Your task to perform on an android device: install app "LiveIn - Share Your Moment" Image 0: 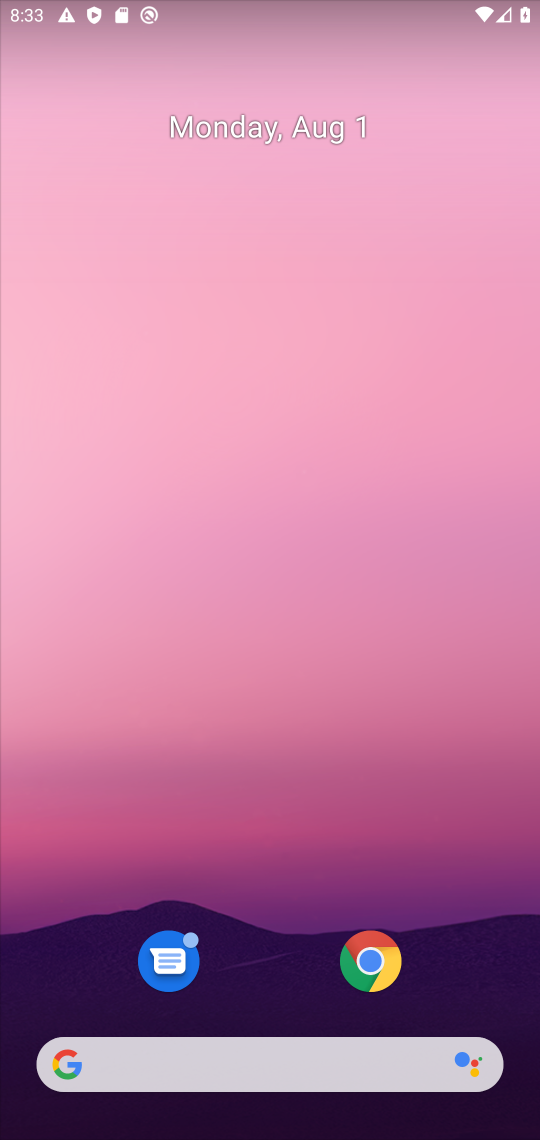
Step 0: drag from (399, 756) to (288, 74)
Your task to perform on an android device: install app "LiveIn - Share Your Moment" Image 1: 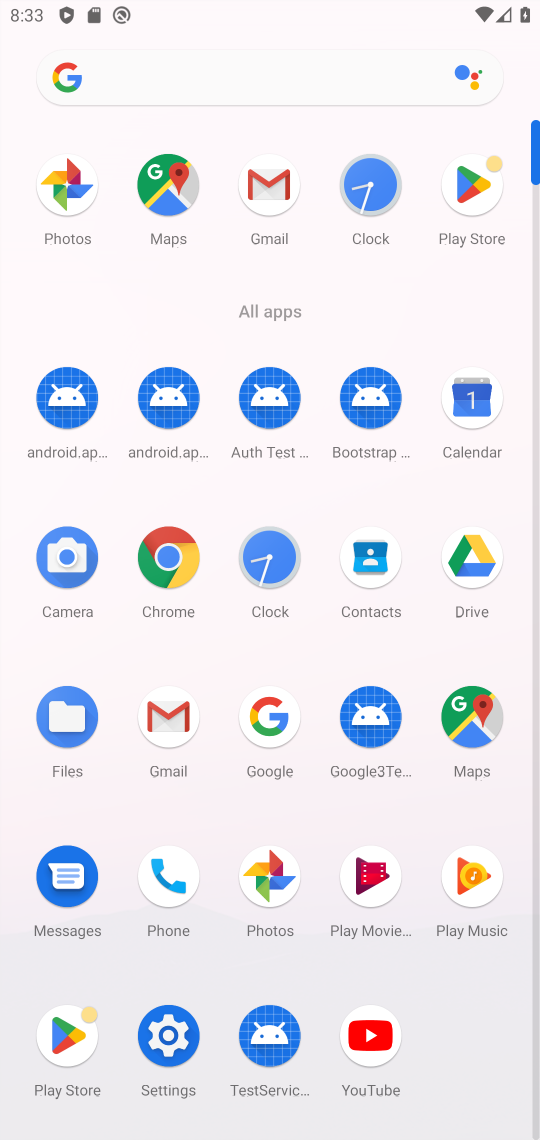
Step 1: click (454, 194)
Your task to perform on an android device: install app "LiveIn - Share Your Moment" Image 2: 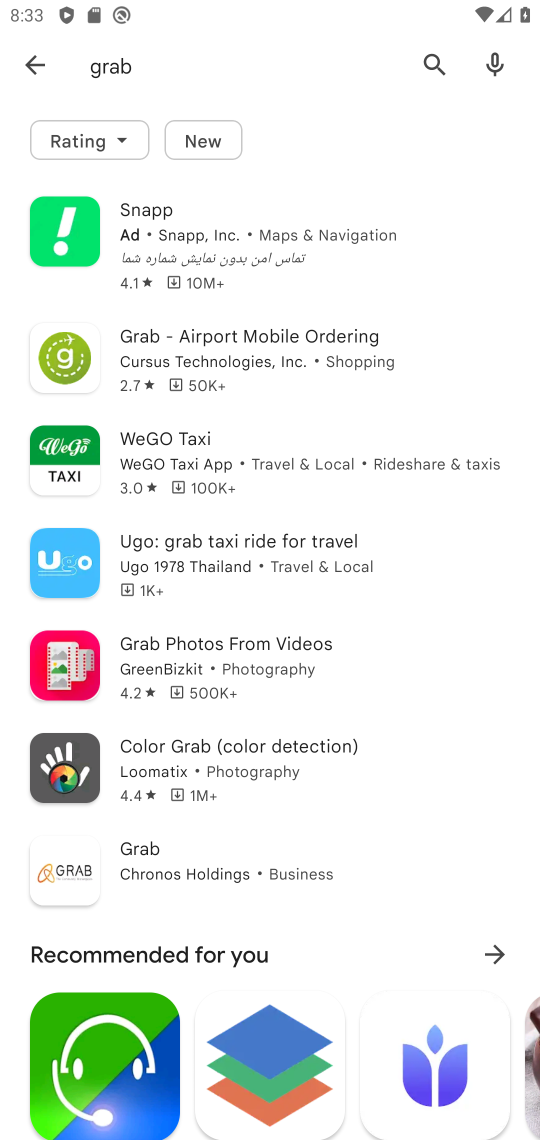
Step 2: click (15, 65)
Your task to perform on an android device: install app "LiveIn - Share Your Moment" Image 3: 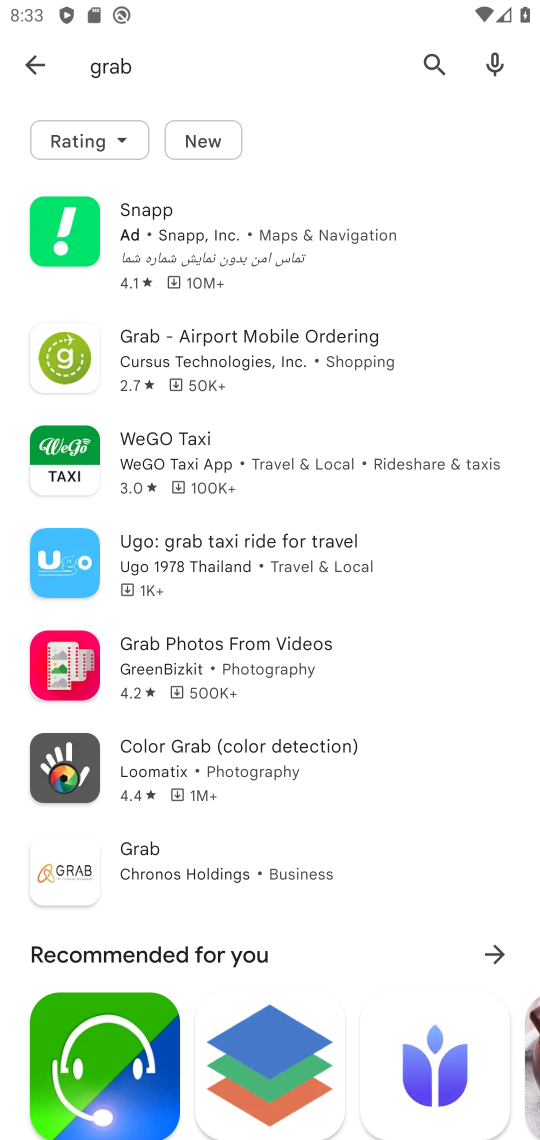
Step 3: click (36, 75)
Your task to perform on an android device: install app "LiveIn - Share Your Moment" Image 4: 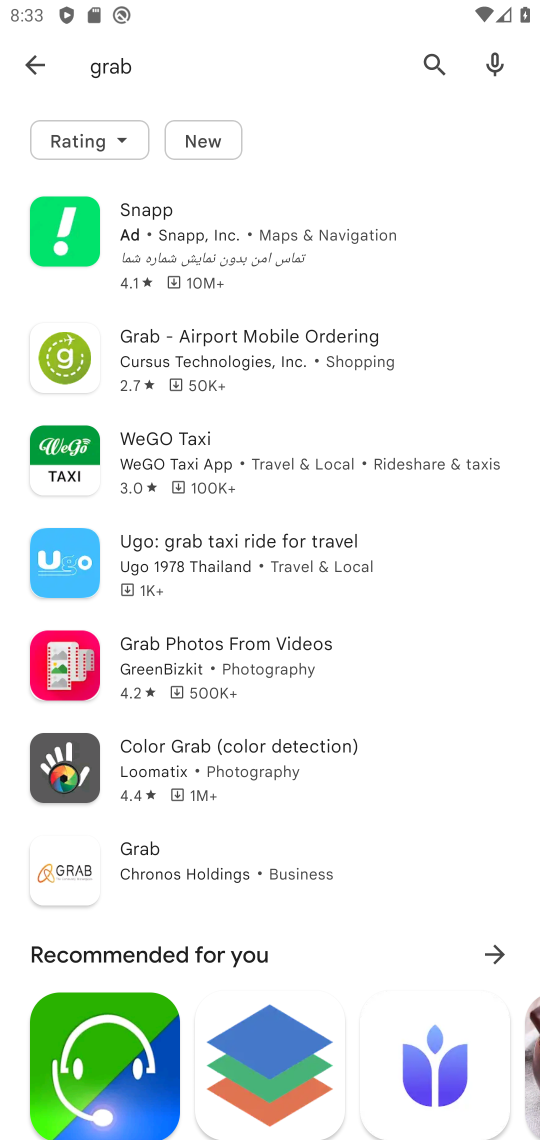
Step 4: click (28, 70)
Your task to perform on an android device: install app "LiveIn - Share Your Moment" Image 5: 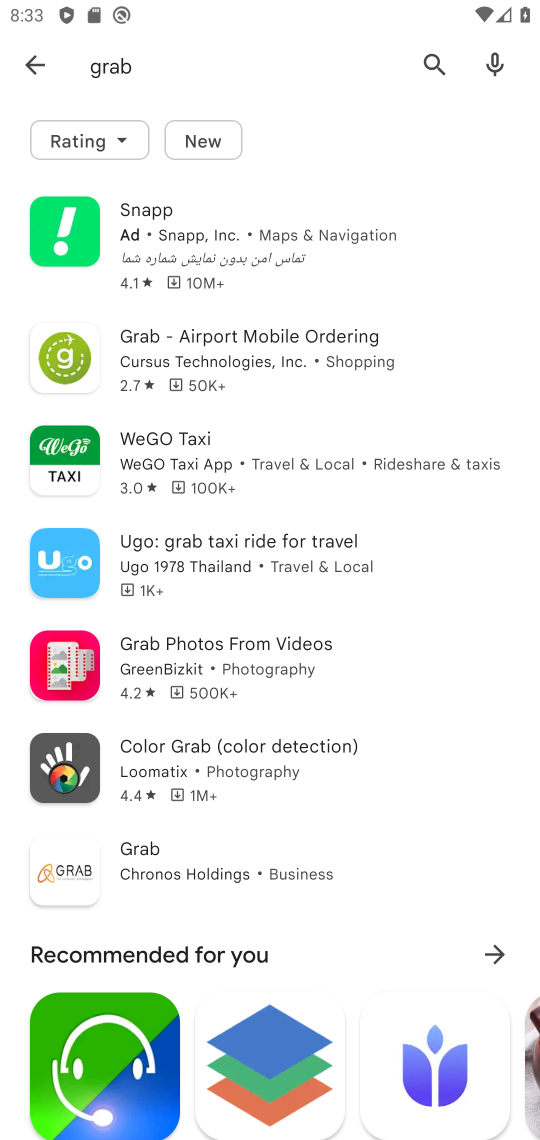
Step 5: press back button
Your task to perform on an android device: install app "LiveIn - Share Your Moment" Image 6: 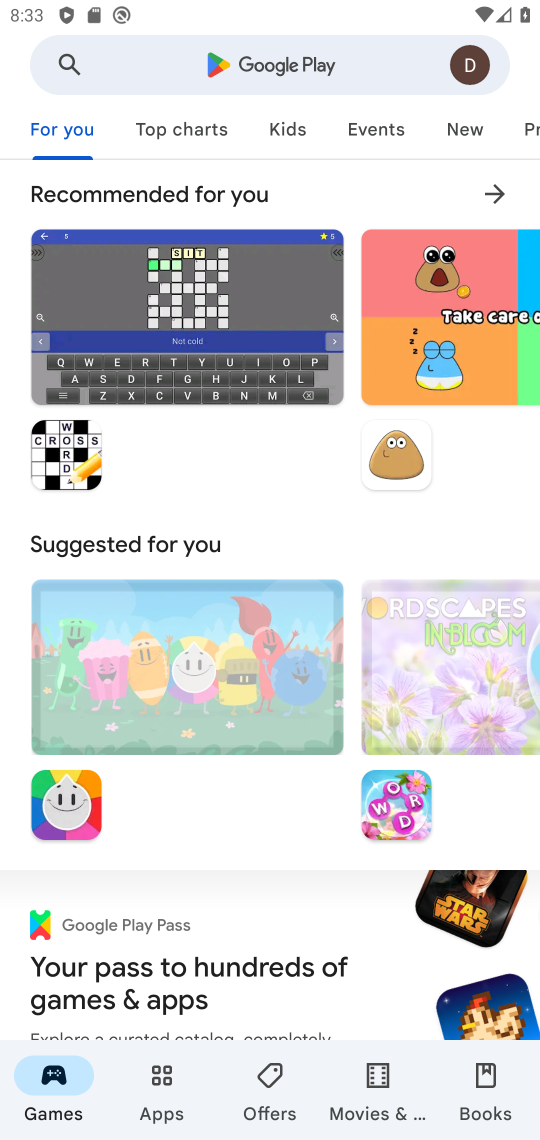
Step 6: click (255, 83)
Your task to perform on an android device: install app "LiveIn - Share Your Moment" Image 7: 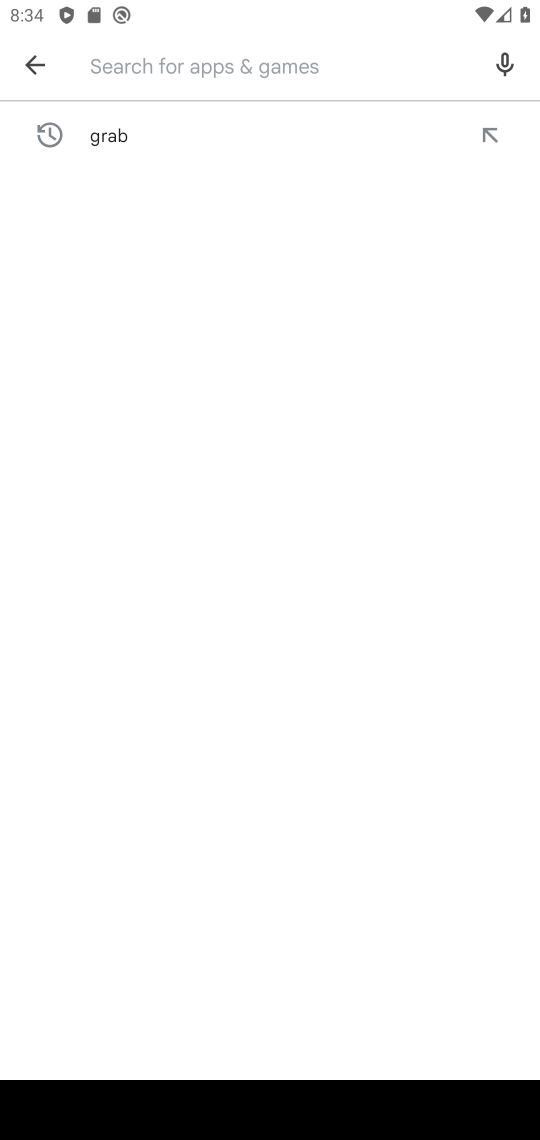
Step 7: type ""LiveIn - Share Your Moment"
Your task to perform on an android device: install app "LiveIn - Share Your Moment" Image 8: 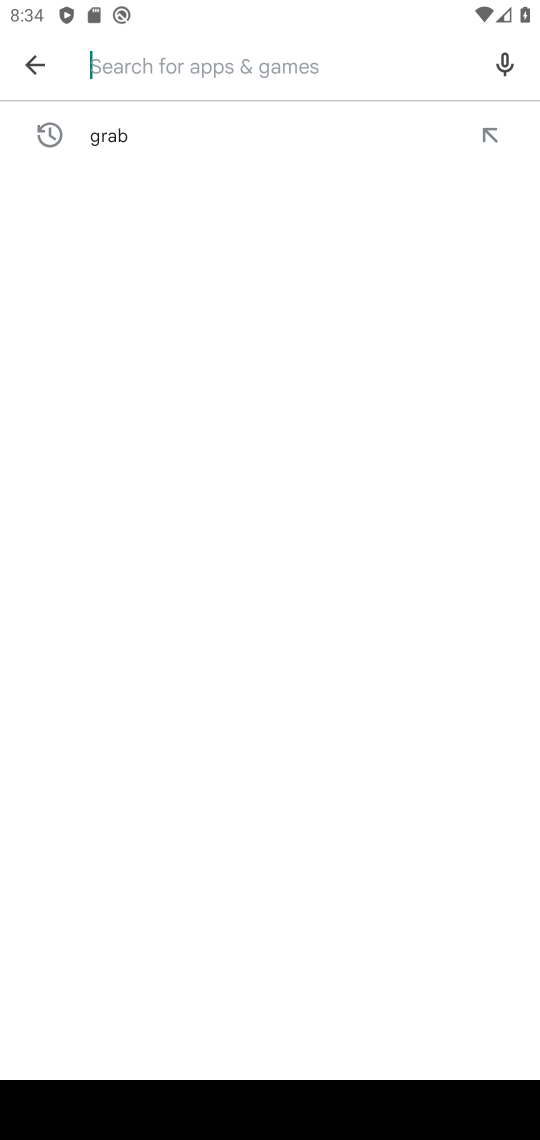
Step 8: type ""LiveIn - Share Your Moment"
Your task to perform on an android device: install app "LiveIn - Share Your Moment" Image 9: 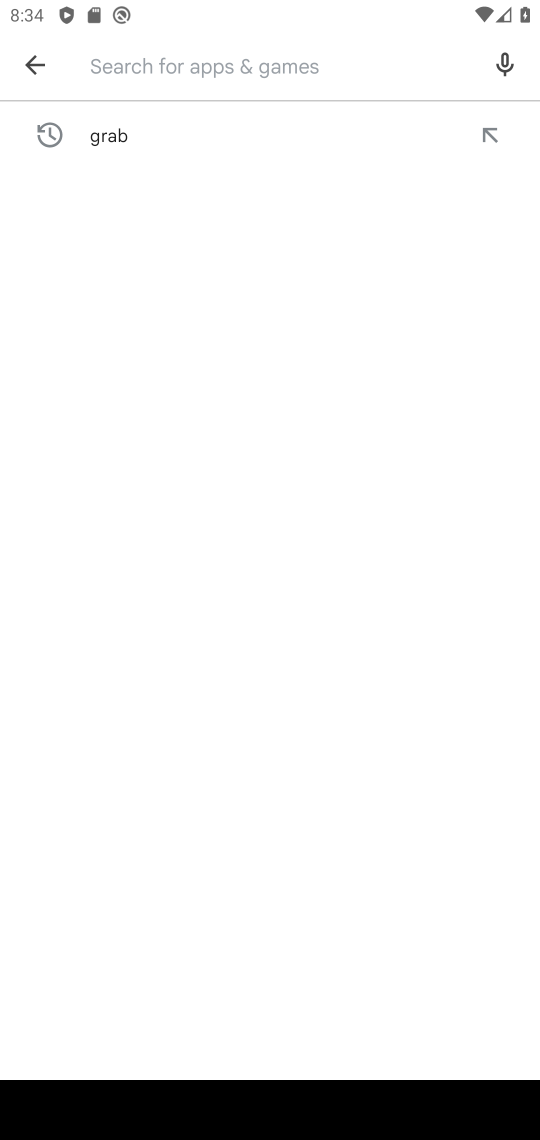
Step 9: press enter
Your task to perform on an android device: install app "LiveIn - Share Your Moment" Image 10: 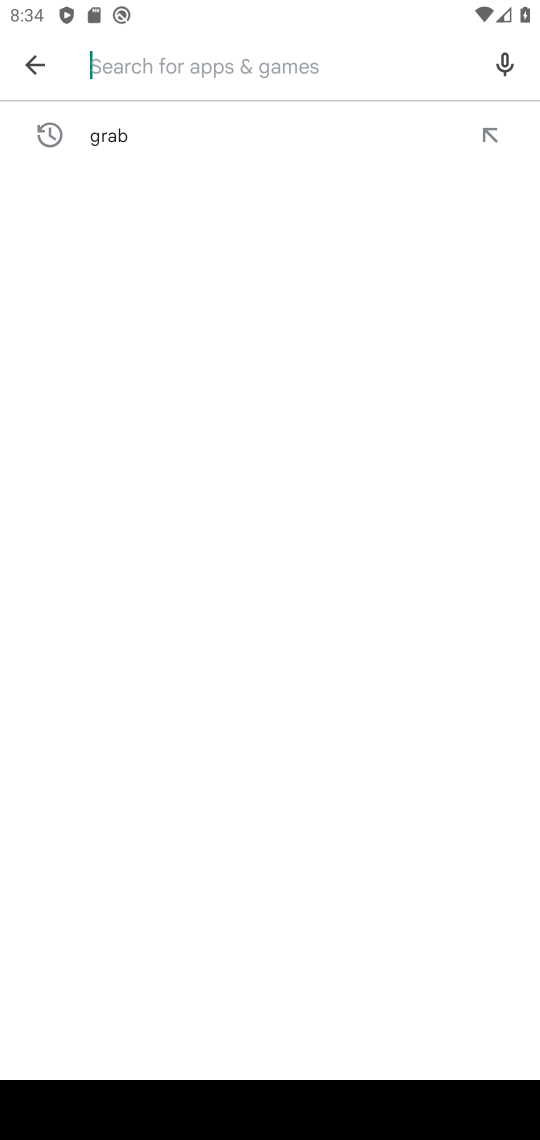
Step 10: type "livein share your moment"
Your task to perform on an android device: install app "LiveIn - Share Your Moment" Image 11: 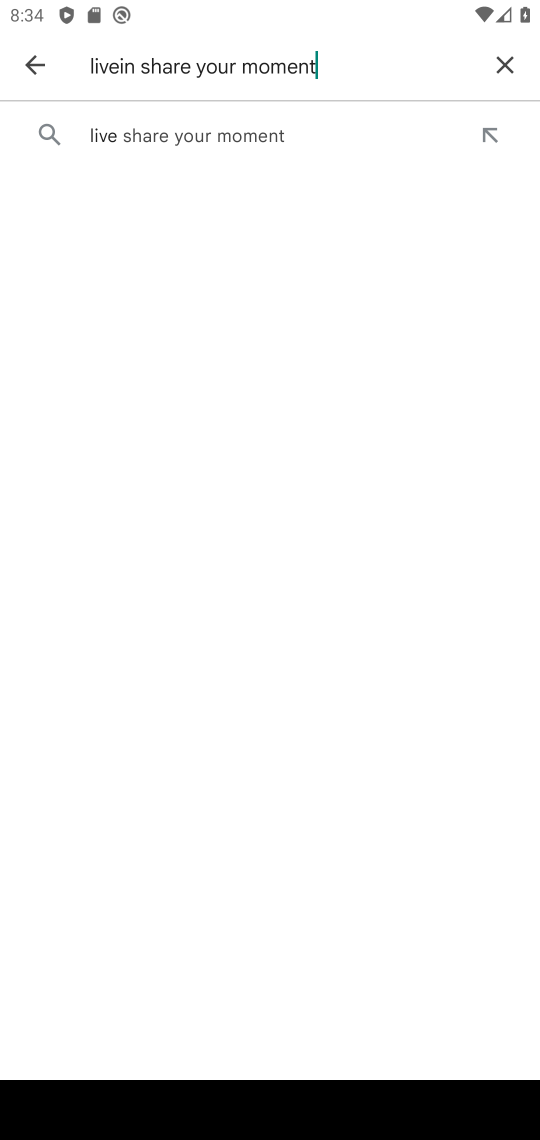
Step 11: click (227, 131)
Your task to perform on an android device: install app "LiveIn - Share Your Moment" Image 12: 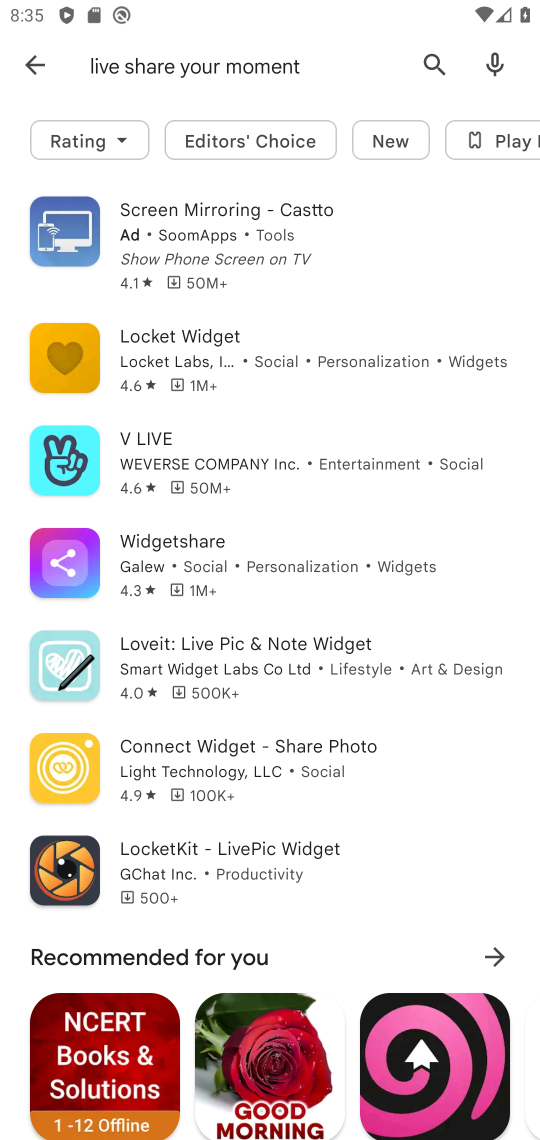
Step 12: task complete